Your task to perform on an android device: open app "Yahoo Mail" Image 0: 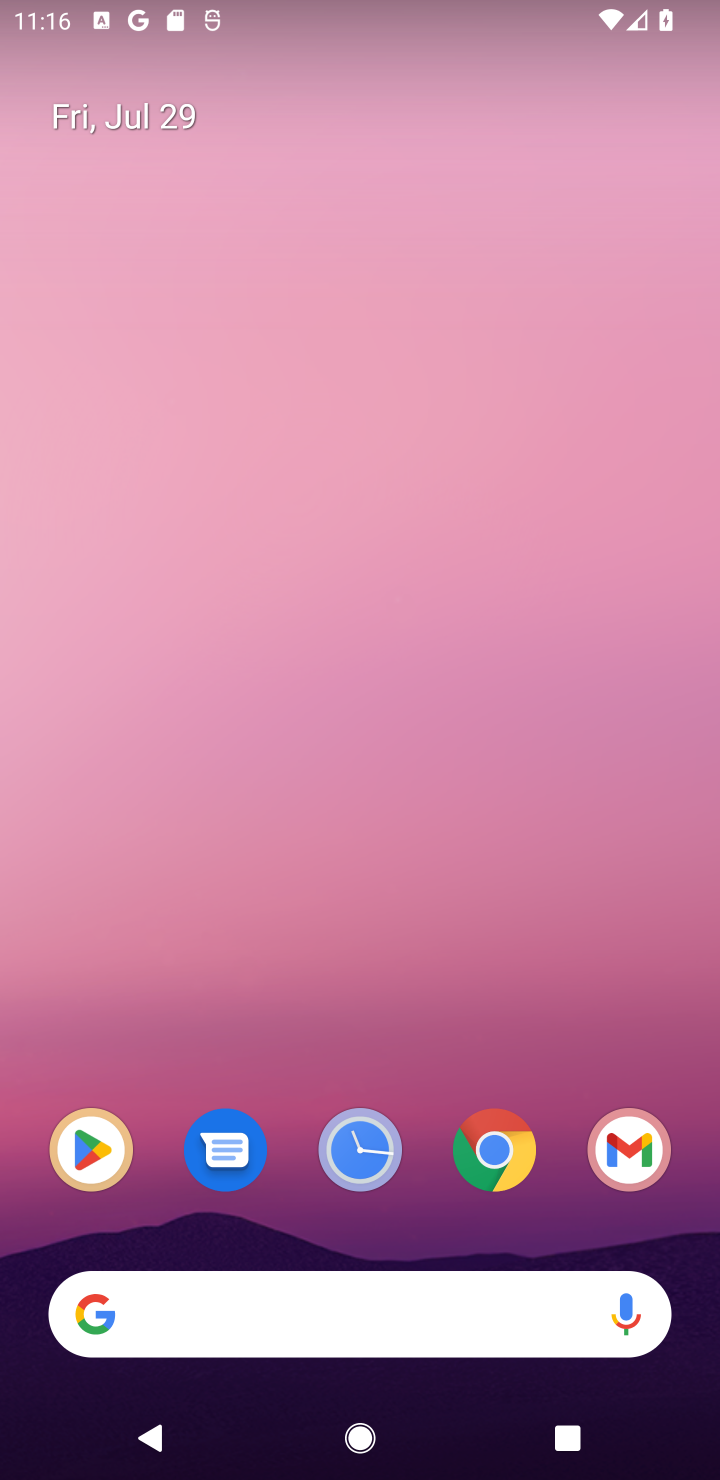
Step 0: click (78, 1155)
Your task to perform on an android device: open app "Yahoo Mail" Image 1: 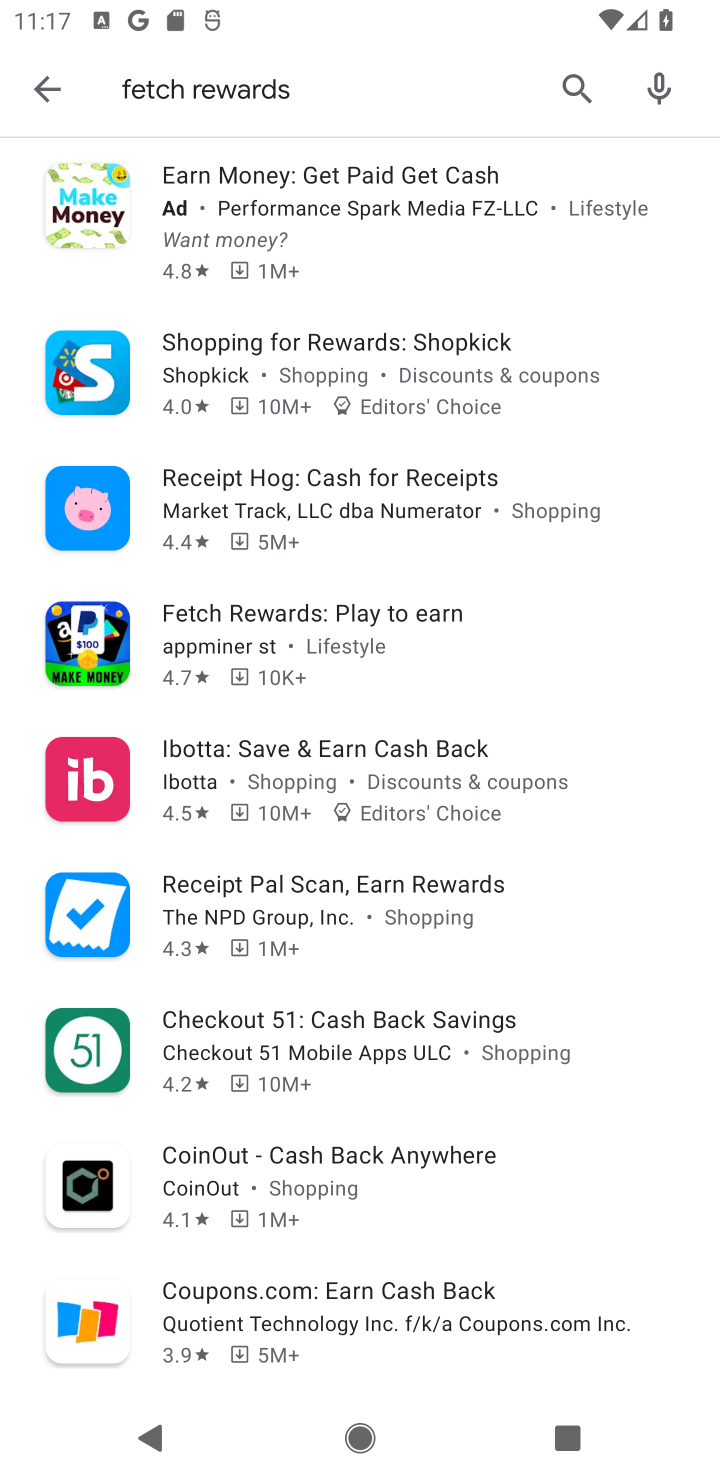
Step 1: click (594, 91)
Your task to perform on an android device: open app "Yahoo Mail" Image 2: 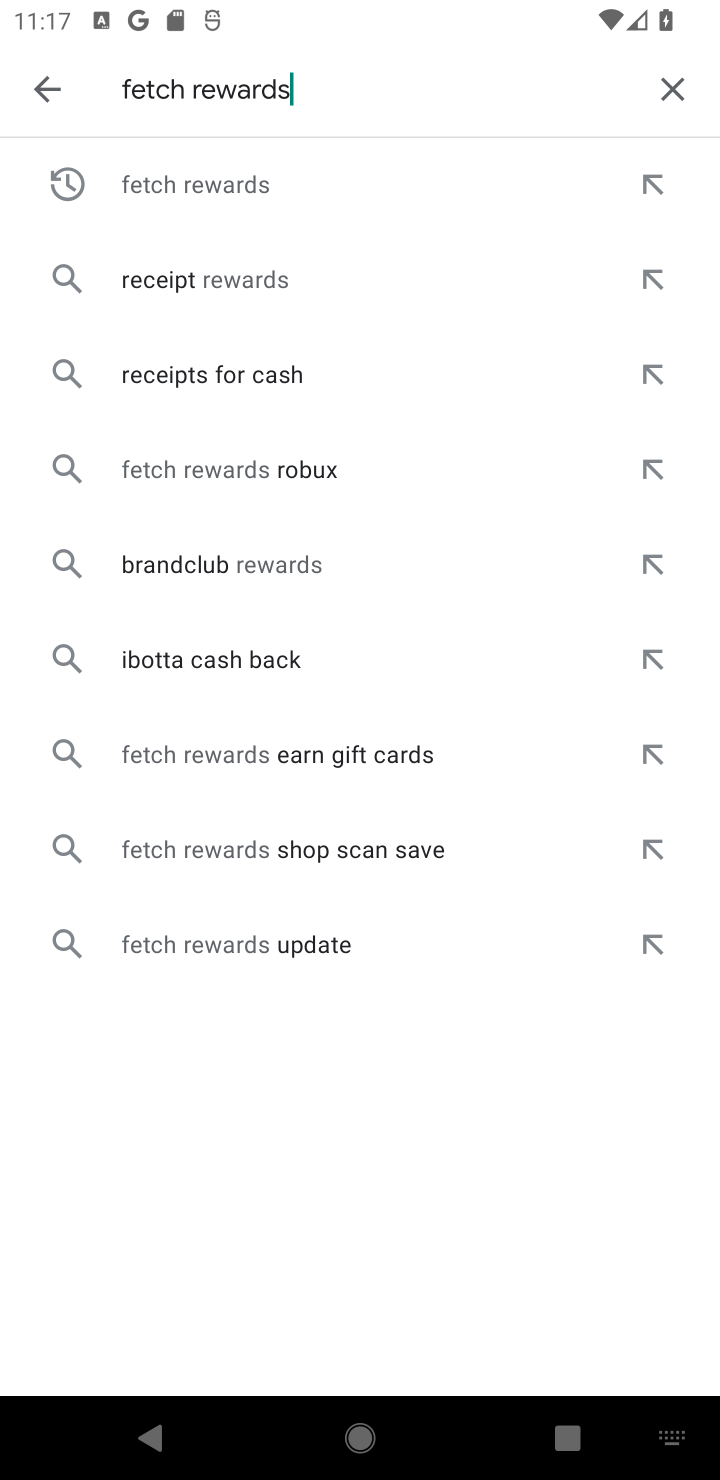
Step 2: click (686, 81)
Your task to perform on an android device: open app "Yahoo Mail" Image 3: 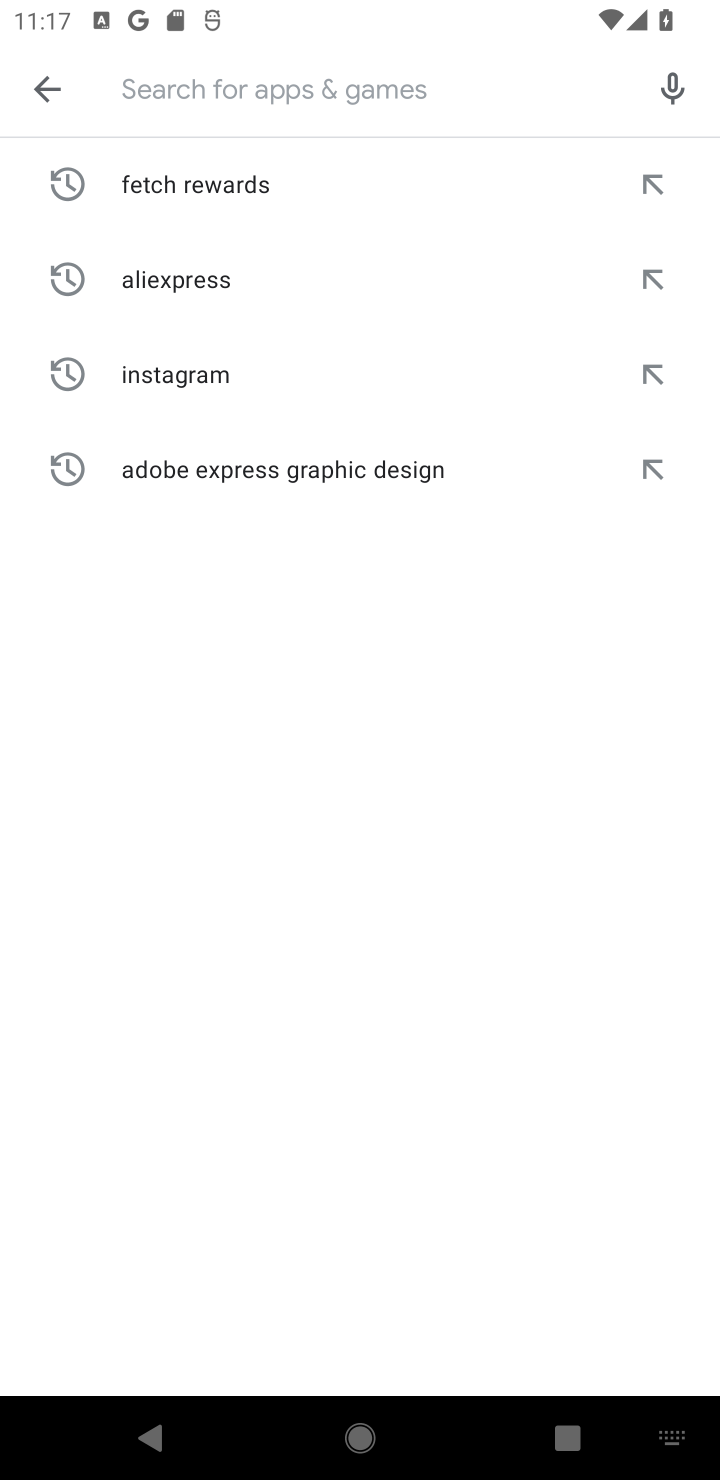
Step 3: click (270, 83)
Your task to perform on an android device: open app "Yahoo Mail" Image 4: 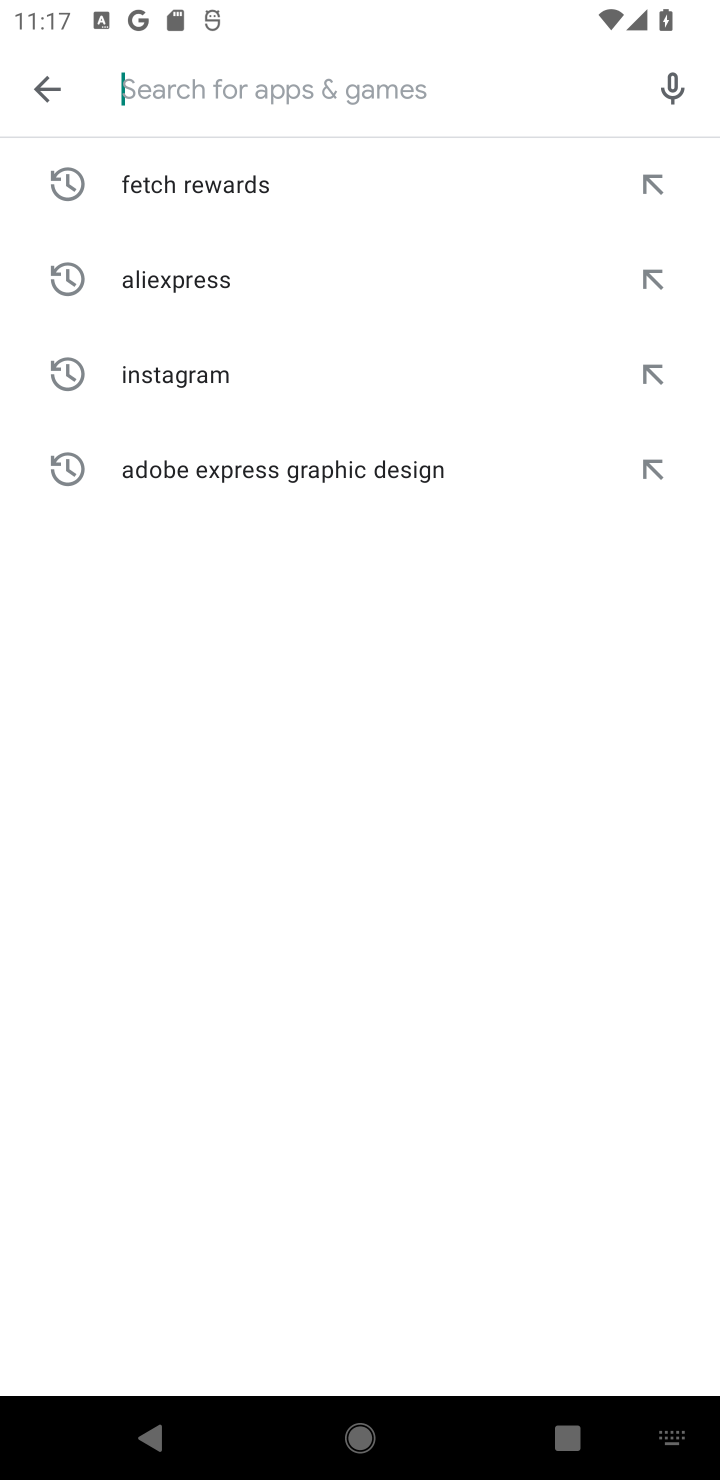
Step 4: type "yahoo mail"
Your task to perform on an android device: open app "Yahoo Mail" Image 5: 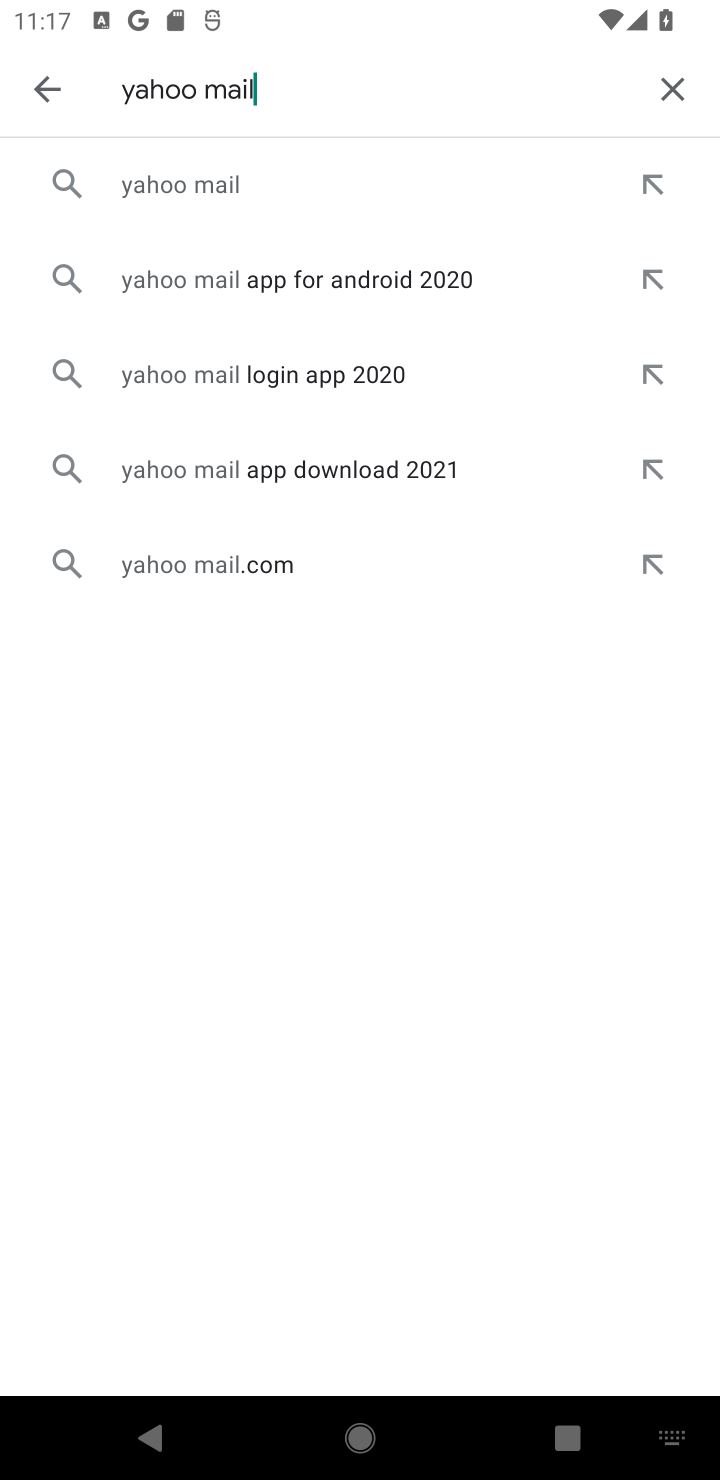
Step 5: click (136, 173)
Your task to perform on an android device: open app "Yahoo Mail" Image 6: 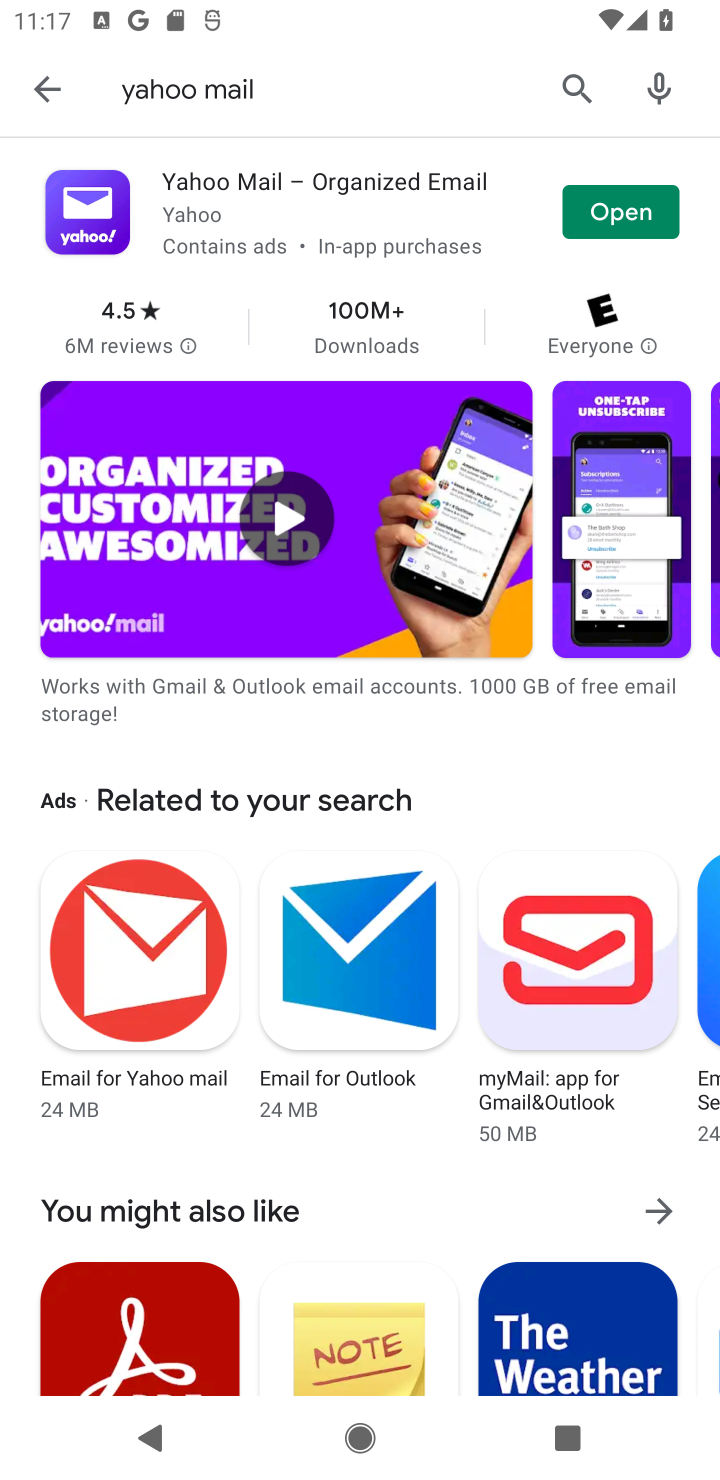
Step 6: click (648, 221)
Your task to perform on an android device: open app "Yahoo Mail" Image 7: 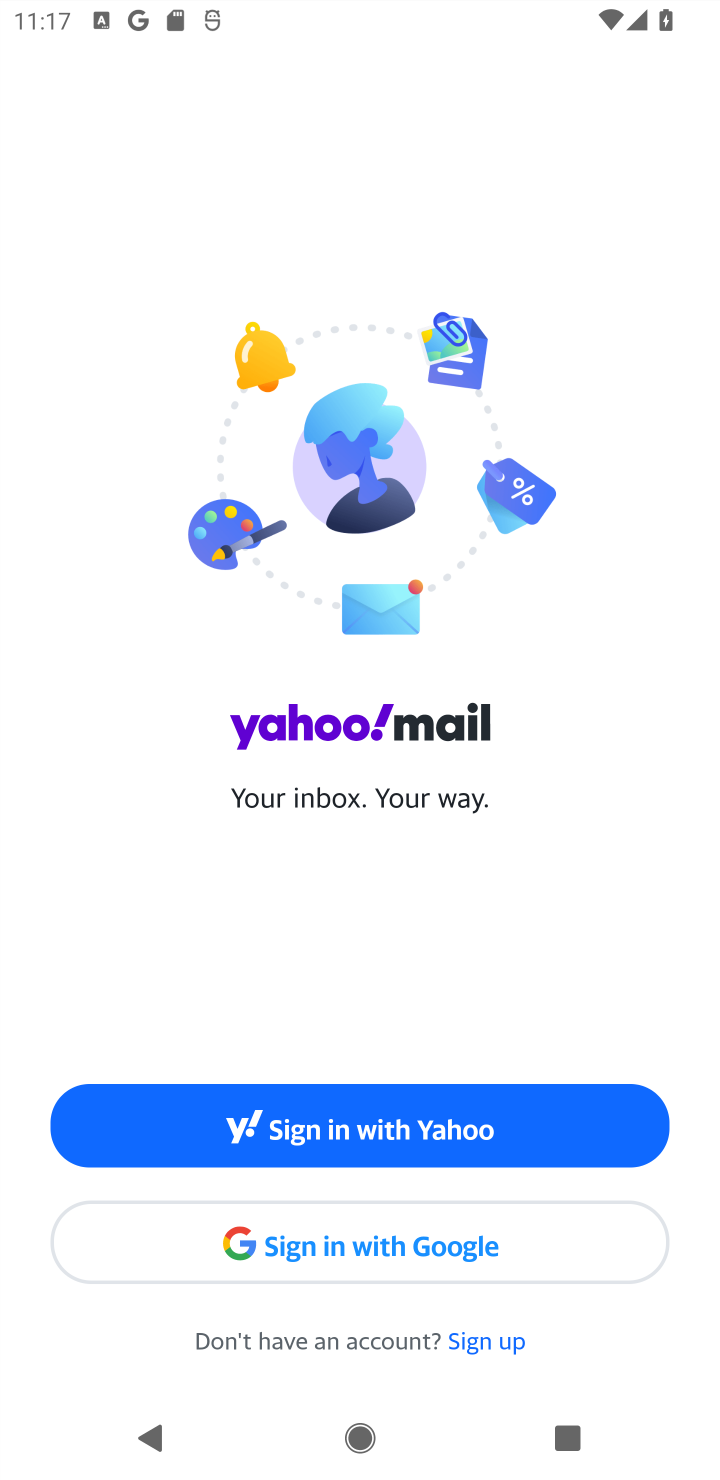
Step 7: task complete